Your task to perform on an android device: Open settings Image 0: 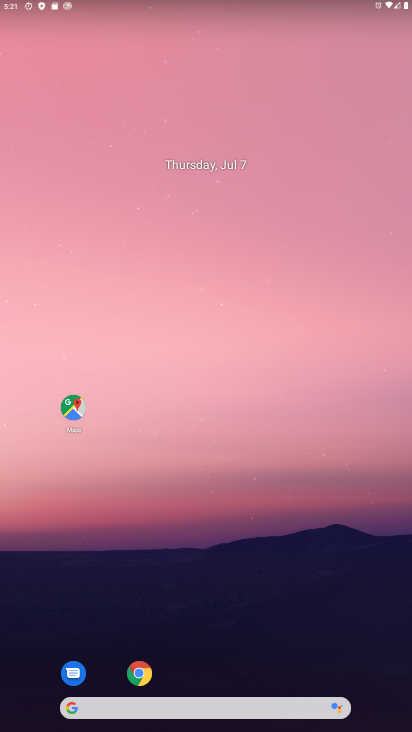
Step 0: drag from (263, 656) to (230, 19)
Your task to perform on an android device: Open settings Image 1: 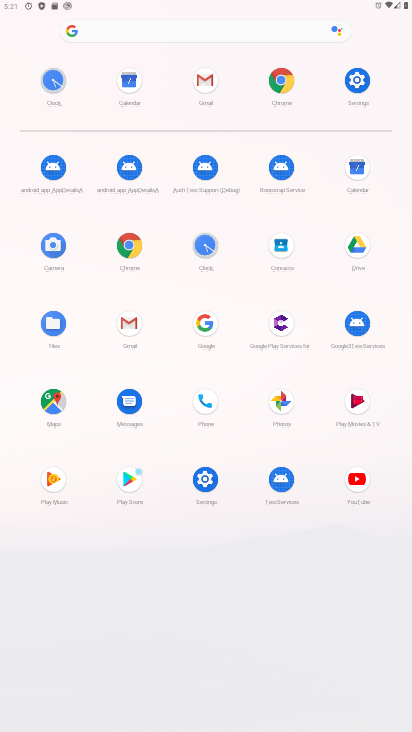
Step 1: click (367, 75)
Your task to perform on an android device: Open settings Image 2: 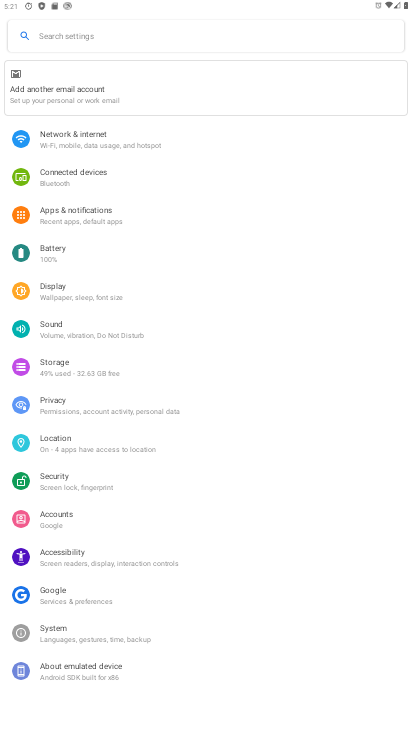
Step 2: task complete